Your task to perform on an android device: Open Chrome and go to the settings page Image 0: 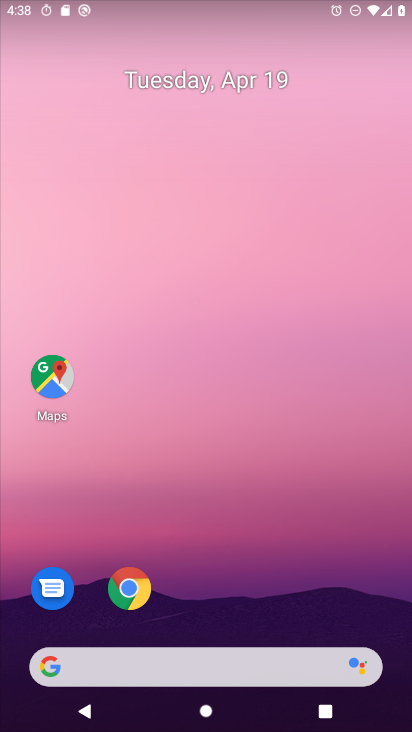
Step 0: click (127, 584)
Your task to perform on an android device: Open Chrome and go to the settings page Image 1: 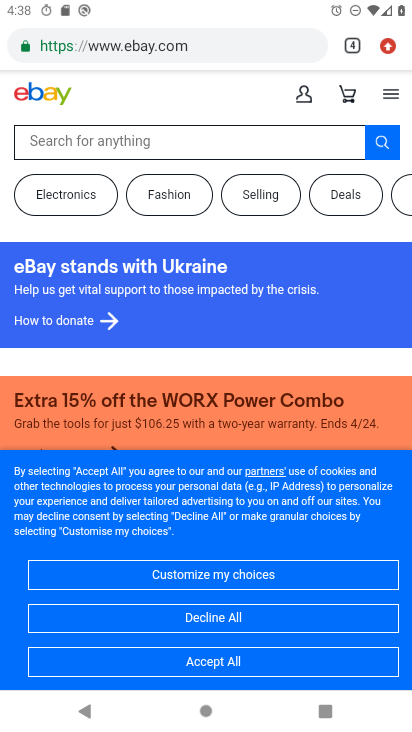
Step 1: click (388, 50)
Your task to perform on an android device: Open Chrome and go to the settings page Image 2: 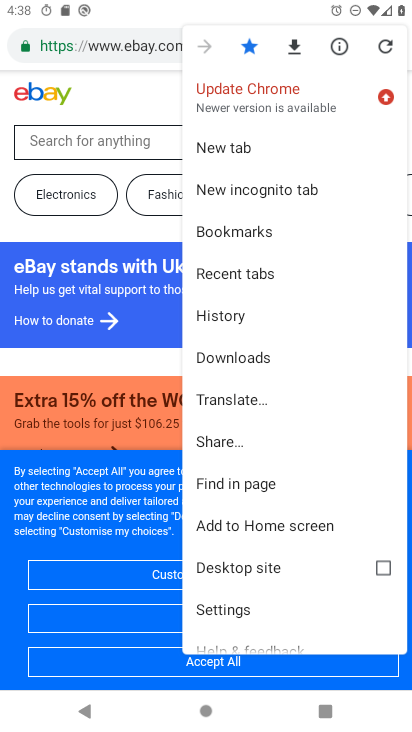
Step 2: click (246, 612)
Your task to perform on an android device: Open Chrome and go to the settings page Image 3: 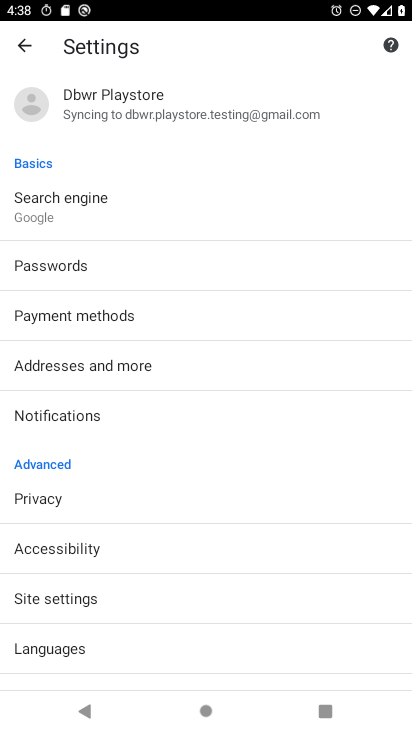
Step 3: task complete